Your task to perform on an android device: Open Youtube and go to "Your channel" Image 0: 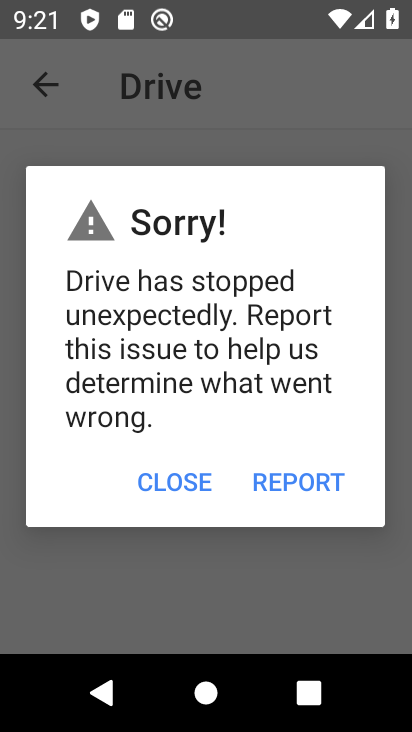
Step 0: press home button
Your task to perform on an android device: Open Youtube and go to "Your channel" Image 1: 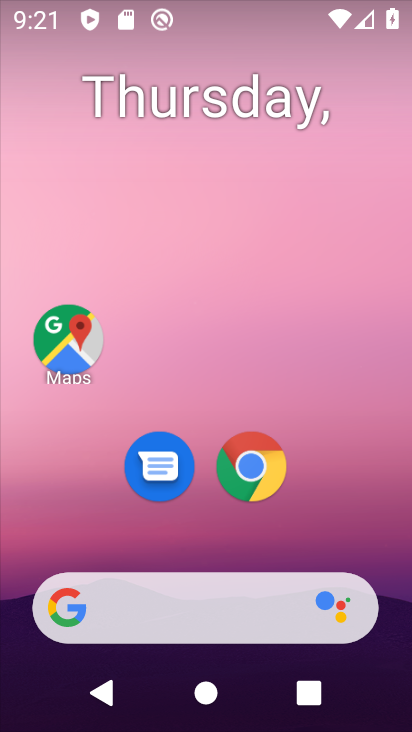
Step 1: drag from (106, 633) to (195, 29)
Your task to perform on an android device: Open Youtube and go to "Your channel" Image 2: 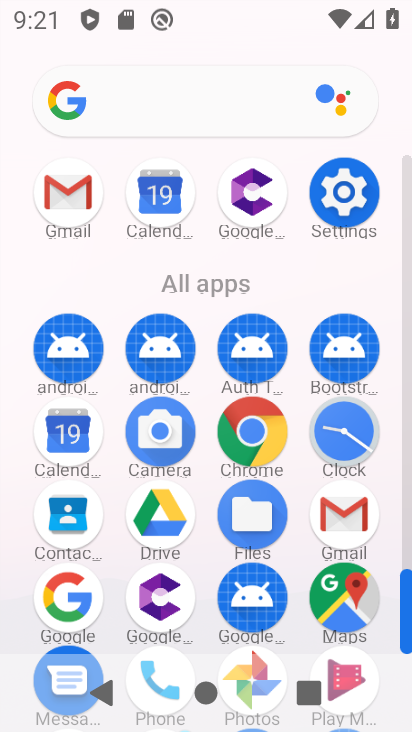
Step 2: drag from (284, 558) to (302, 270)
Your task to perform on an android device: Open Youtube and go to "Your channel" Image 3: 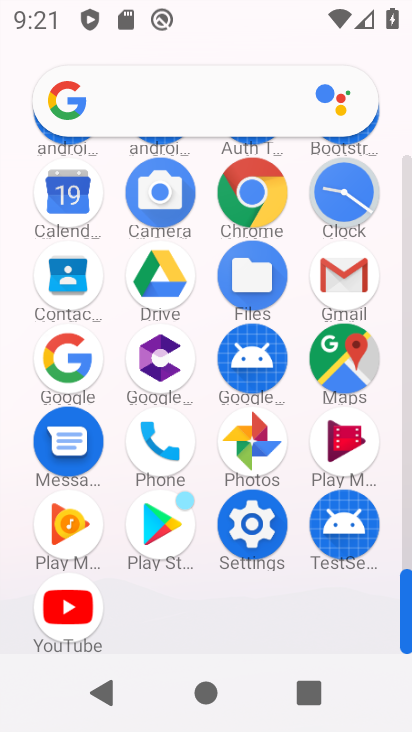
Step 3: click (83, 633)
Your task to perform on an android device: Open Youtube and go to "Your channel" Image 4: 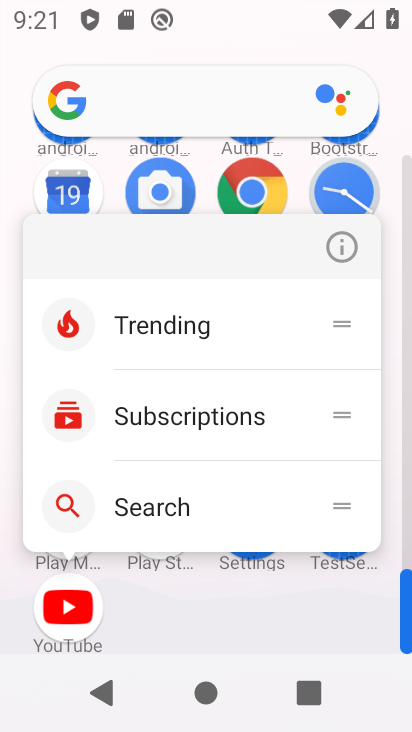
Step 4: click (72, 617)
Your task to perform on an android device: Open Youtube and go to "Your channel" Image 5: 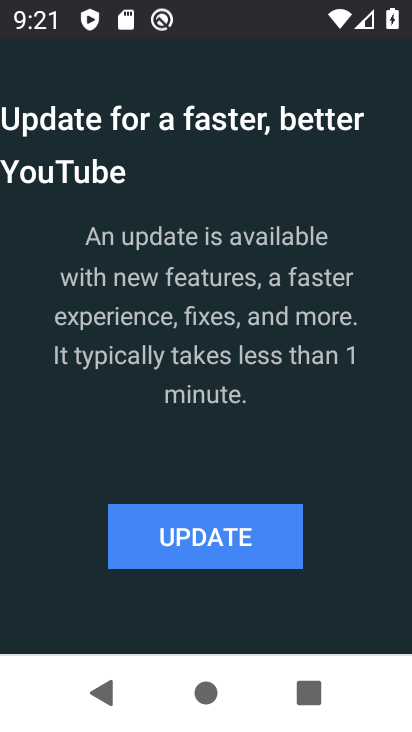
Step 5: click (223, 526)
Your task to perform on an android device: Open Youtube and go to "Your channel" Image 6: 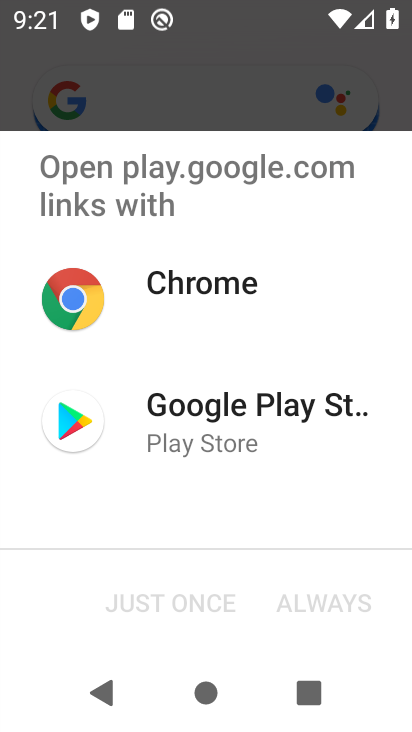
Step 6: click (178, 419)
Your task to perform on an android device: Open Youtube and go to "Your channel" Image 7: 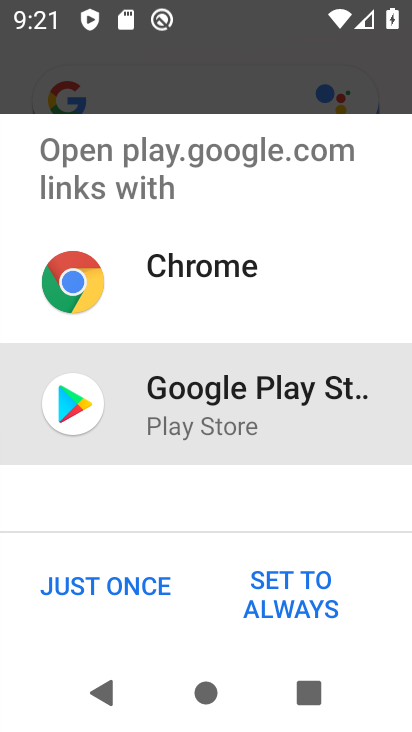
Step 7: click (279, 584)
Your task to perform on an android device: Open Youtube and go to "Your channel" Image 8: 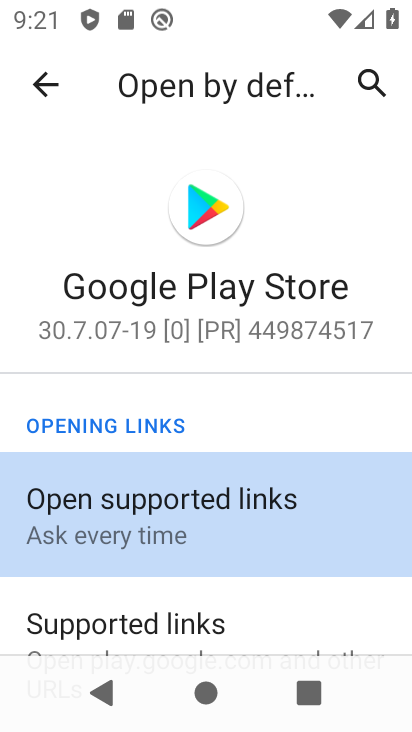
Step 8: press back button
Your task to perform on an android device: Open Youtube and go to "Your channel" Image 9: 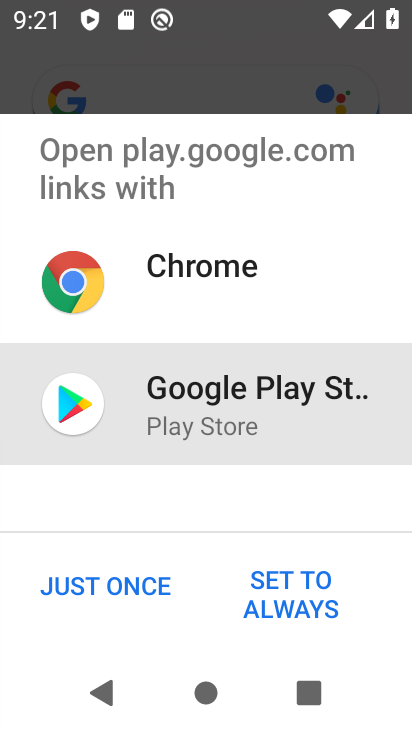
Step 9: click (157, 581)
Your task to perform on an android device: Open Youtube and go to "Your channel" Image 10: 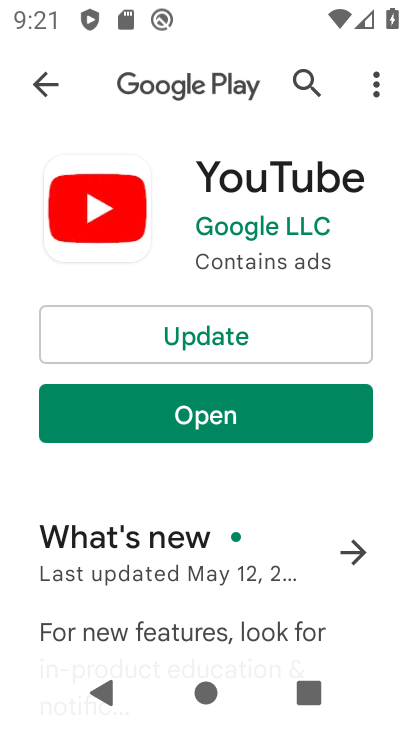
Step 10: click (235, 323)
Your task to perform on an android device: Open Youtube and go to "Your channel" Image 11: 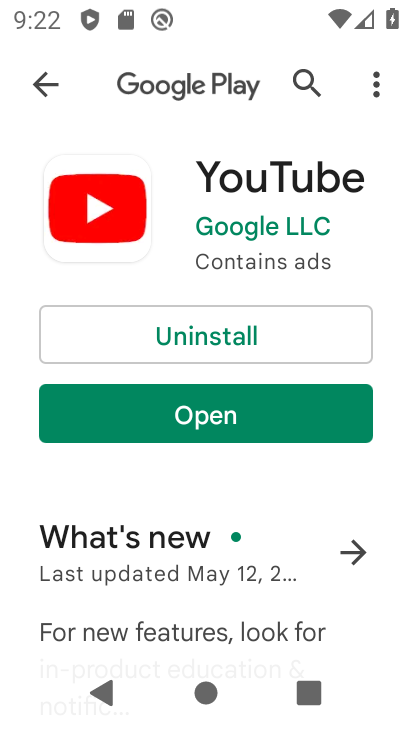
Step 11: click (190, 407)
Your task to perform on an android device: Open Youtube and go to "Your channel" Image 12: 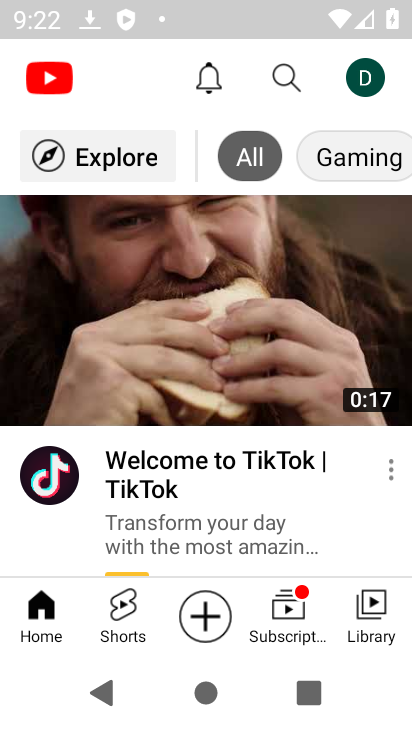
Step 12: click (374, 78)
Your task to perform on an android device: Open Youtube and go to "Your channel" Image 13: 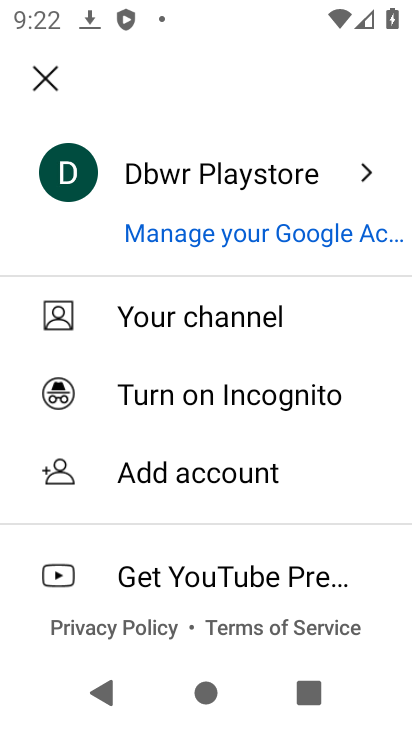
Step 13: click (207, 324)
Your task to perform on an android device: Open Youtube and go to "Your channel" Image 14: 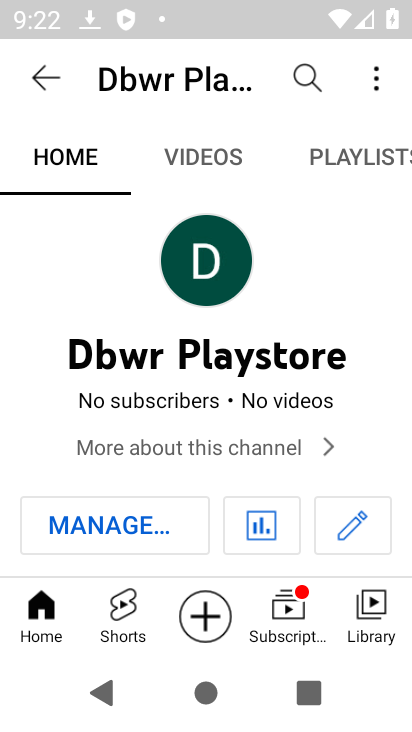
Step 14: task complete